Your task to perform on an android device: Open Google Maps and go to "Timeline" Image 0: 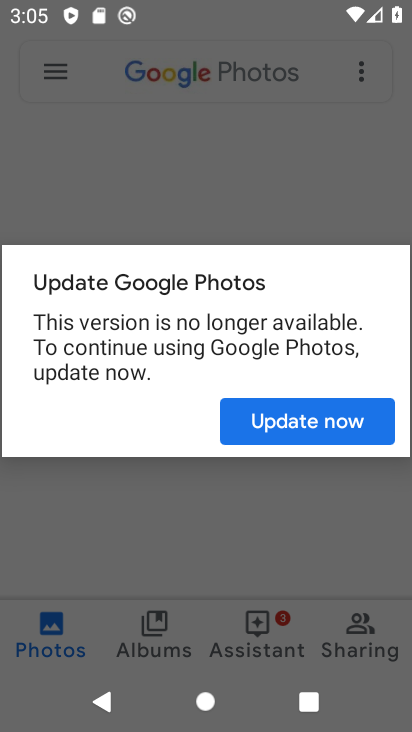
Step 0: press home button
Your task to perform on an android device: Open Google Maps and go to "Timeline" Image 1: 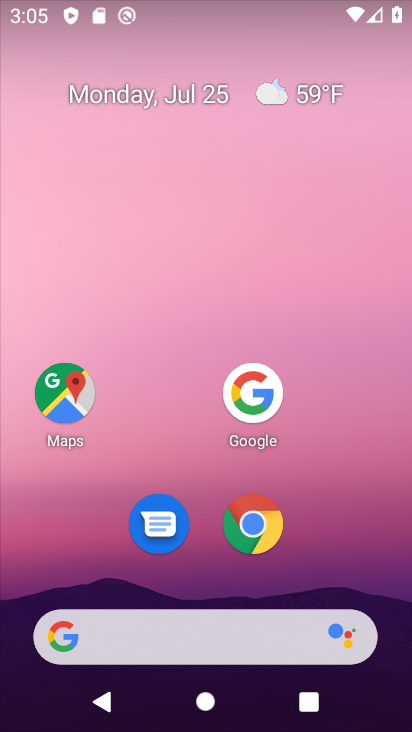
Step 1: click (56, 403)
Your task to perform on an android device: Open Google Maps and go to "Timeline" Image 2: 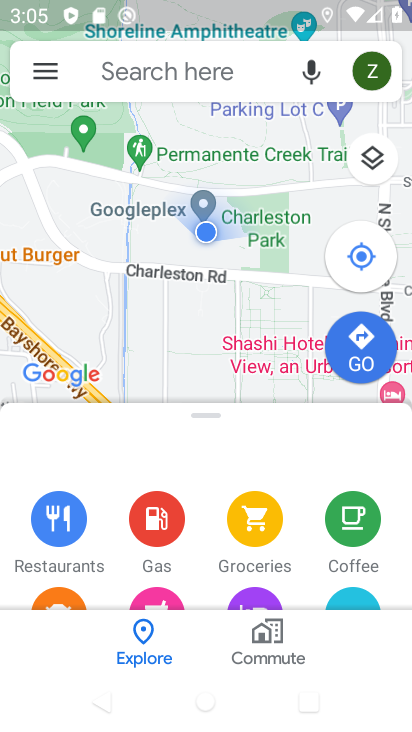
Step 2: click (51, 69)
Your task to perform on an android device: Open Google Maps and go to "Timeline" Image 3: 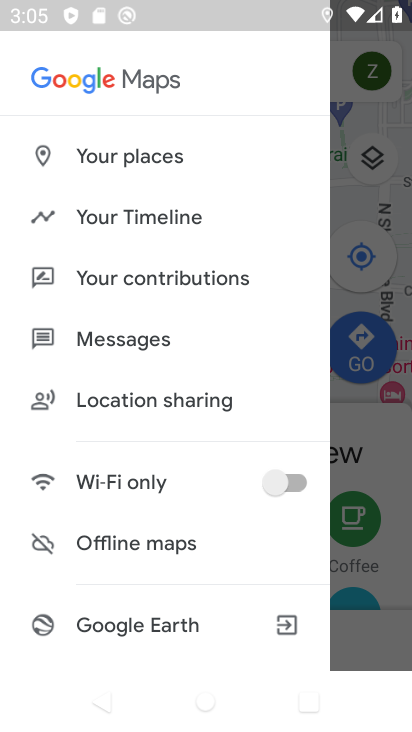
Step 3: click (182, 221)
Your task to perform on an android device: Open Google Maps and go to "Timeline" Image 4: 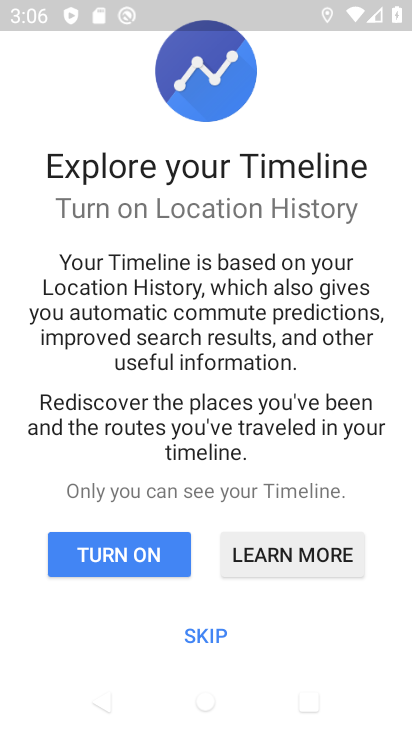
Step 4: click (184, 640)
Your task to perform on an android device: Open Google Maps and go to "Timeline" Image 5: 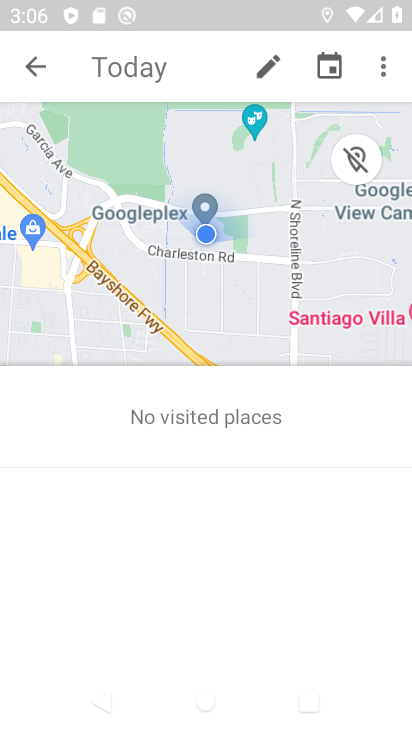
Step 5: task complete